Your task to perform on an android device: stop showing notifications on the lock screen Image 0: 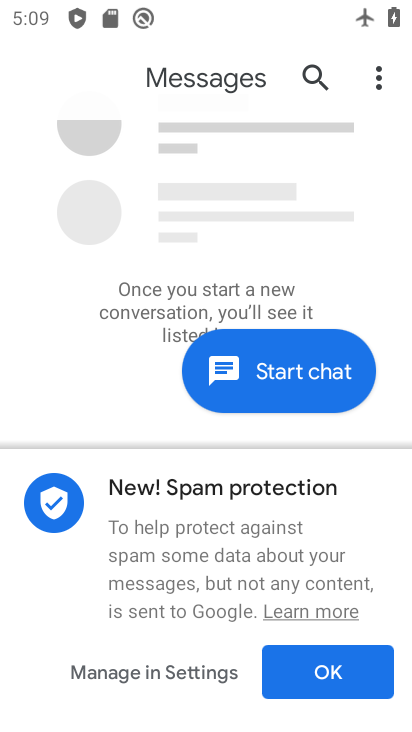
Step 0: press home button
Your task to perform on an android device: stop showing notifications on the lock screen Image 1: 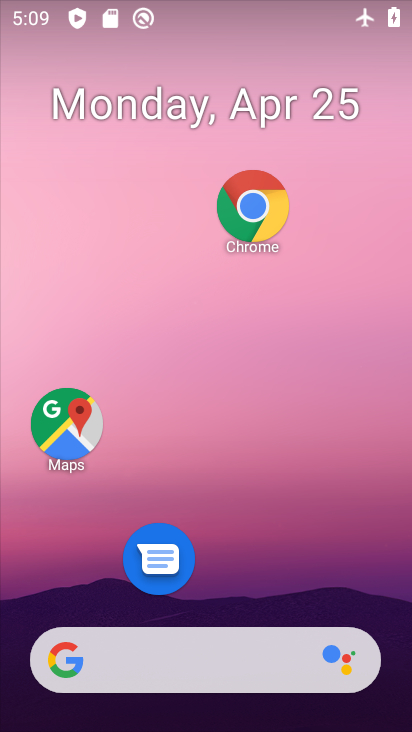
Step 1: drag from (275, 119) to (300, 23)
Your task to perform on an android device: stop showing notifications on the lock screen Image 2: 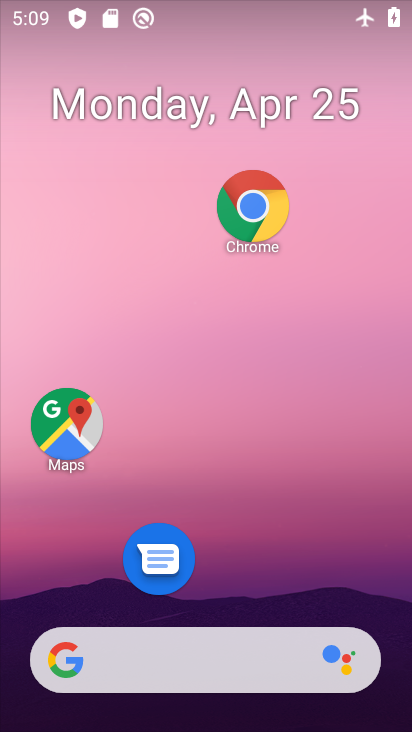
Step 2: drag from (308, 564) to (311, 76)
Your task to perform on an android device: stop showing notifications on the lock screen Image 3: 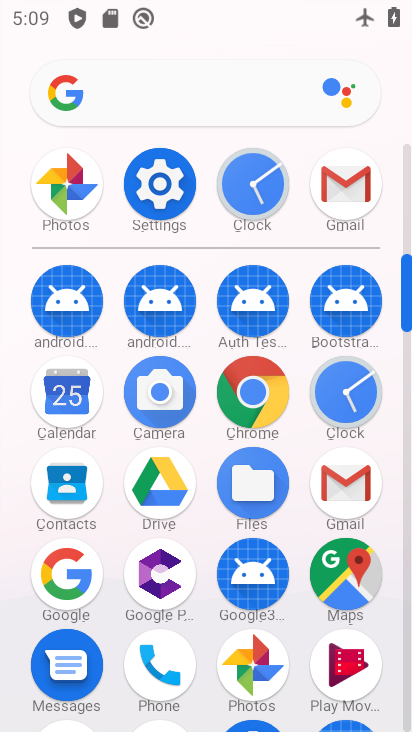
Step 3: click (169, 181)
Your task to perform on an android device: stop showing notifications on the lock screen Image 4: 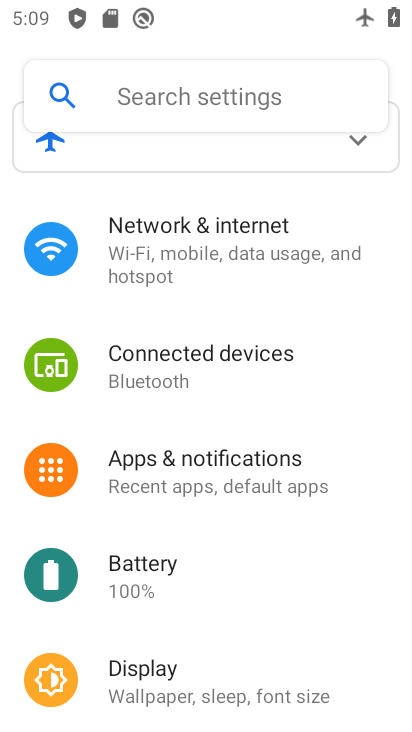
Step 4: click (183, 465)
Your task to perform on an android device: stop showing notifications on the lock screen Image 5: 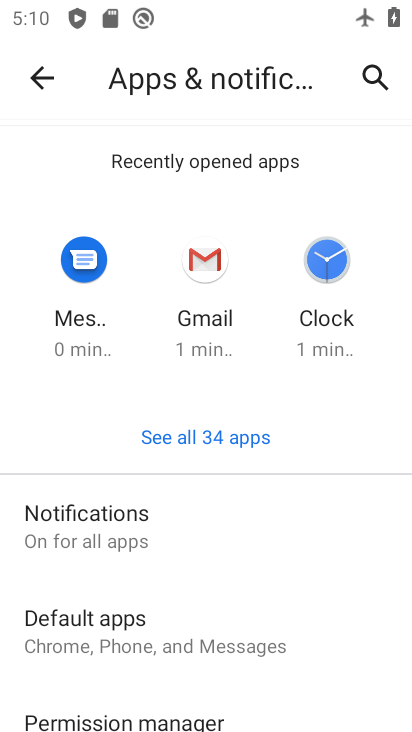
Step 5: drag from (268, 578) to (281, 312)
Your task to perform on an android device: stop showing notifications on the lock screen Image 6: 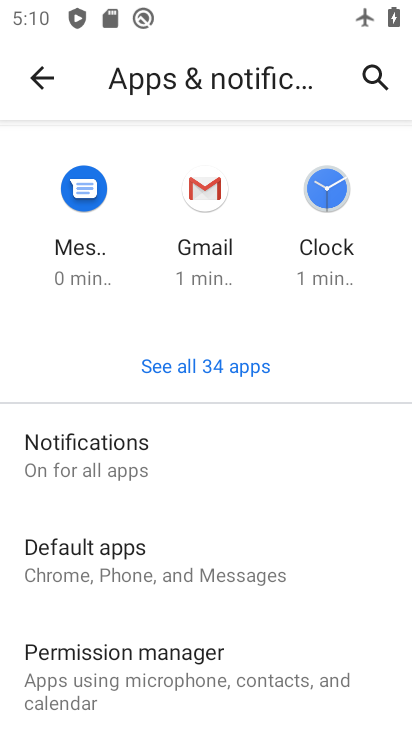
Step 6: click (125, 451)
Your task to perform on an android device: stop showing notifications on the lock screen Image 7: 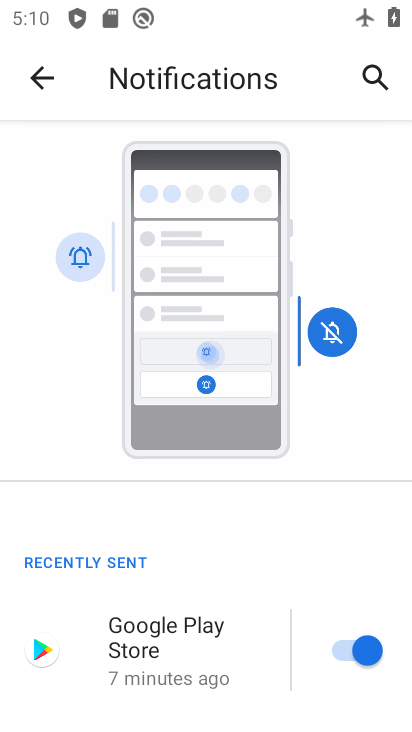
Step 7: drag from (241, 559) to (253, 270)
Your task to perform on an android device: stop showing notifications on the lock screen Image 8: 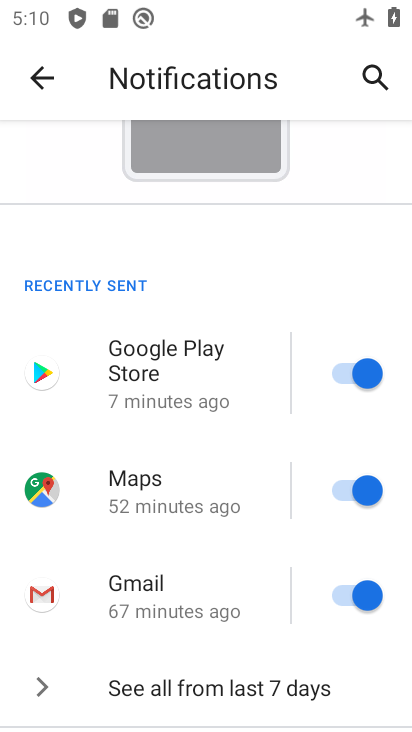
Step 8: drag from (226, 657) to (262, 171)
Your task to perform on an android device: stop showing notifications on the lock screen Image 9: 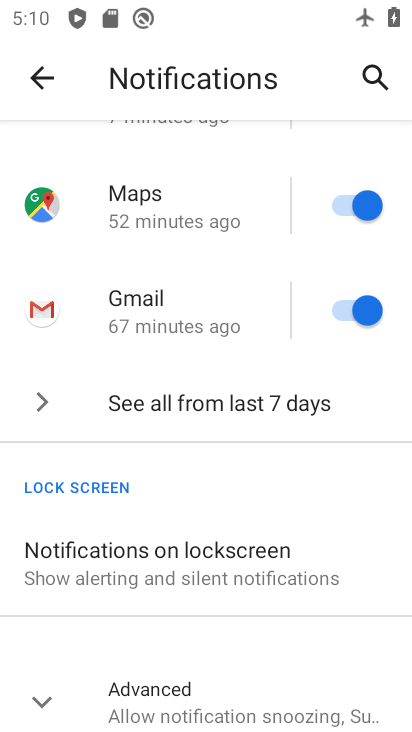
Step 9: click (136, 569)
Your task to perform on an android device: stop showing notifications on the lock screen Image 10: 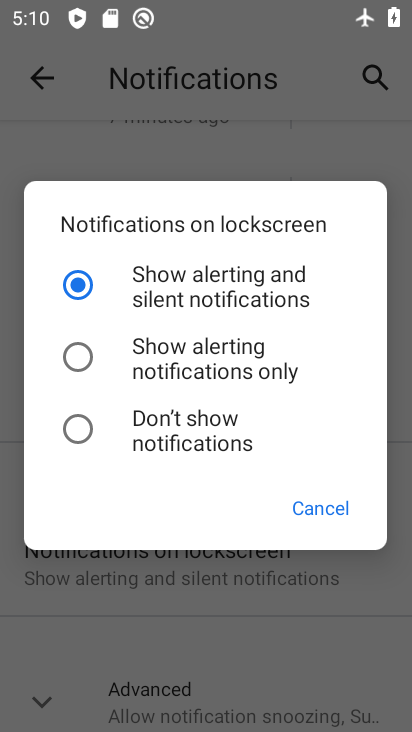
Step 10: click (159, 438)
Your task to perform on an android device: stop showing notifications on the lock screen Image 11: 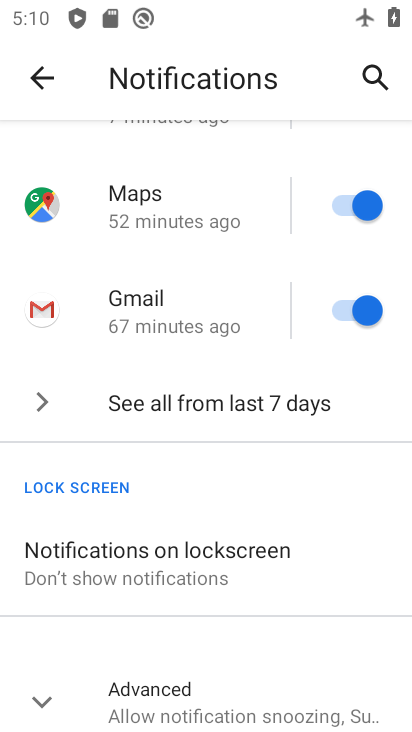
Step 11: task complete